Your task to perform on an android device: Open Google Maps and go to "Timeline" Image 0: 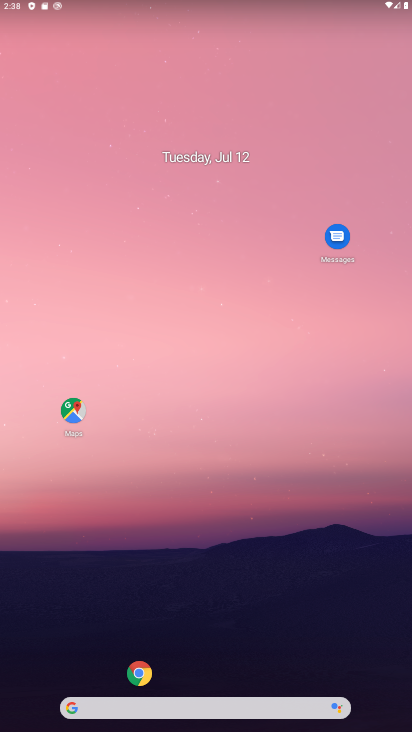
Step 0: click (126, 670)
Your task to perform on an android device: Open Google Maps and go to "Timeline" Image 1: 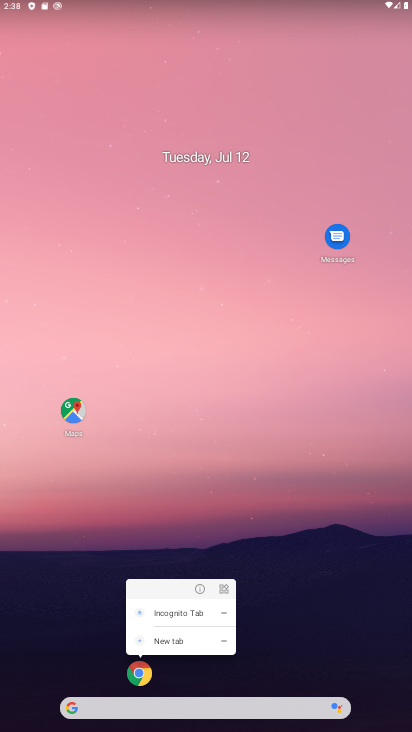
Step 1: click (74, 409)
Your task to perform on an android device: Open Google Maps and go to "Timeline" Image 2: 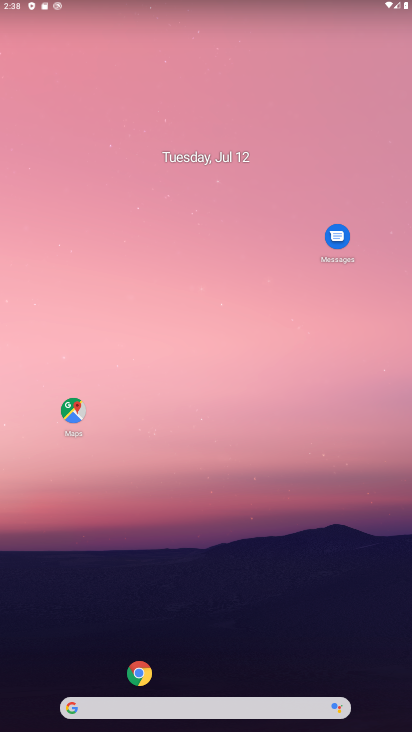
Step 2: click (69, 410)
Your task to perform on an android device: Open Google Maps and go to "Timeline" Image 3: 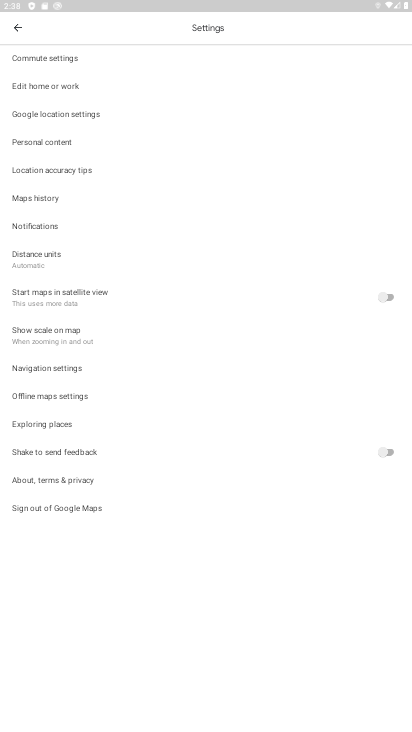
Step 3: click (15, 25)
Your task to perform on an android device: Open Google Maps and go to "Timeline" Image 4: 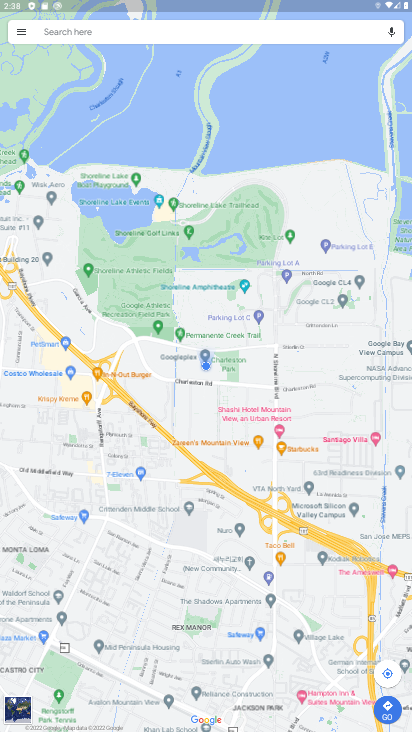
Step 4: click (17, 30)
Your task to perform on an android device: Open Google Maps and go to "Timeline" Image 5: 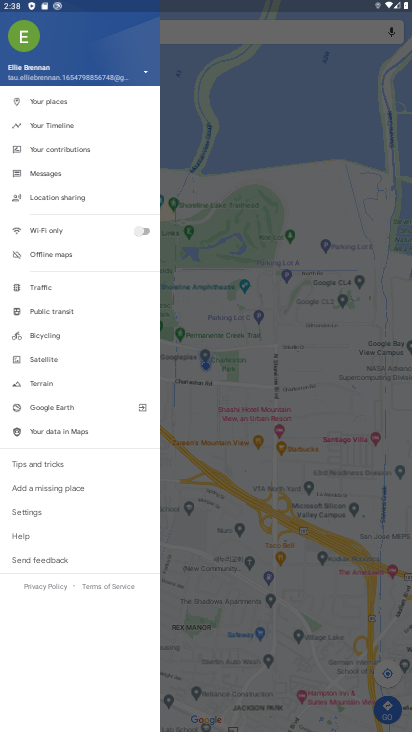
Step 5: click (46, 128)
Your task to perform on an android device: Open Google Maps and go to "Timeline" Image 6: 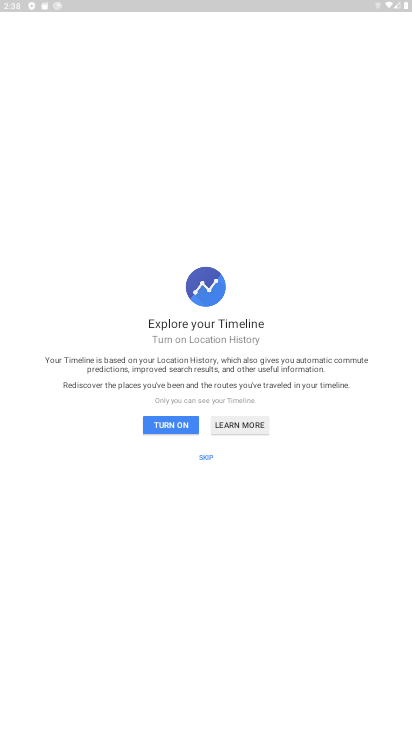
Step 6: click (202, 450)
Your task to perform on an android device: Open Google Maps and go to "Timeline" Image 7: 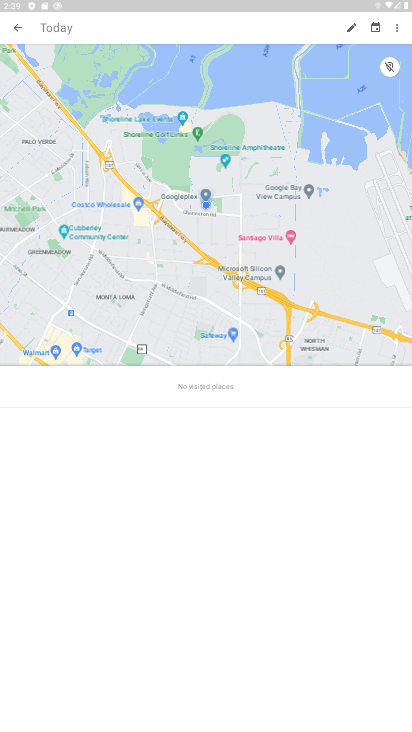
Step 7: task complete